Your task to perform on an android device: stop showing notifications on the lock screen Image 0: 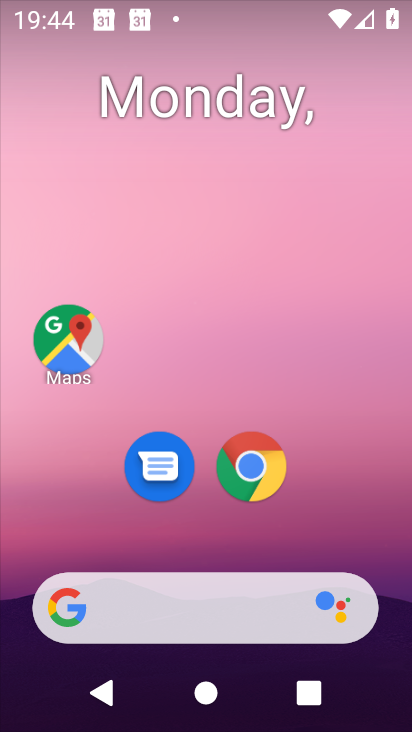
Step 0: drag from (348, 557) to (340, 123)
Your task to perform on an android device: stop showing notifications on the lock screen Image 1: 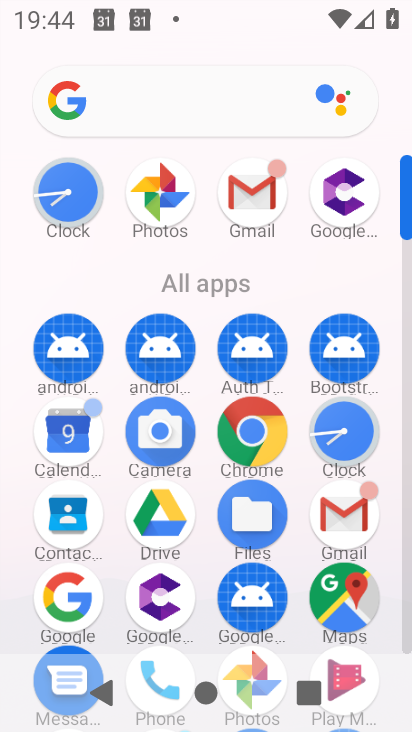
Step 1: click (265, 449)
Your task to perform on an android device: stop showing notifications on the lock screen Image 2: 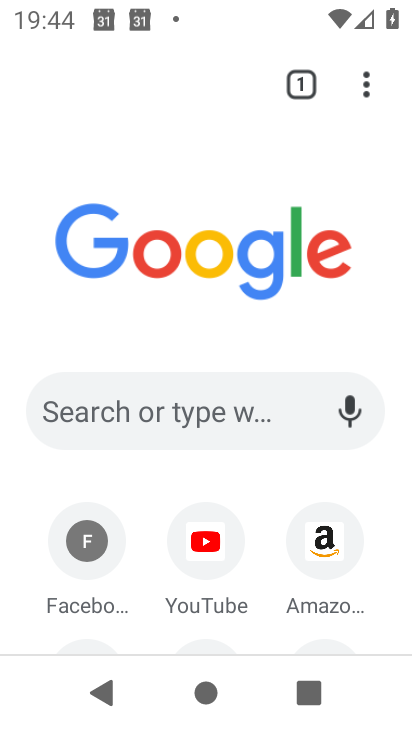
Step 2: press home button
Your task to perform on an android device: stop showing notifications on the lock screen Image 3: 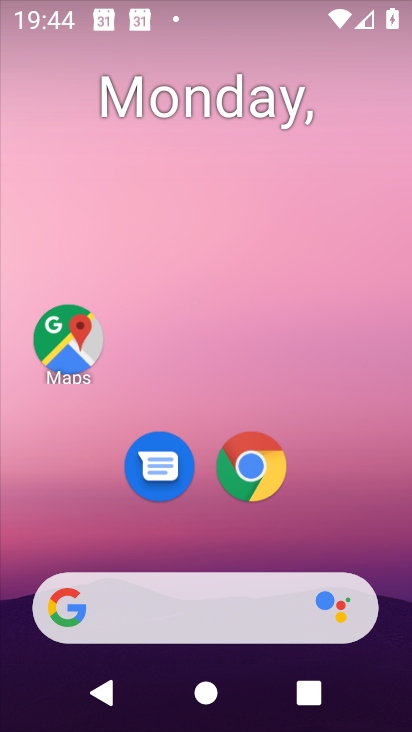
Step 3: drag from (338, 508) to (344, 167)
Your task to perform on an android device: stop showing notifications on the lock screen Image 4: 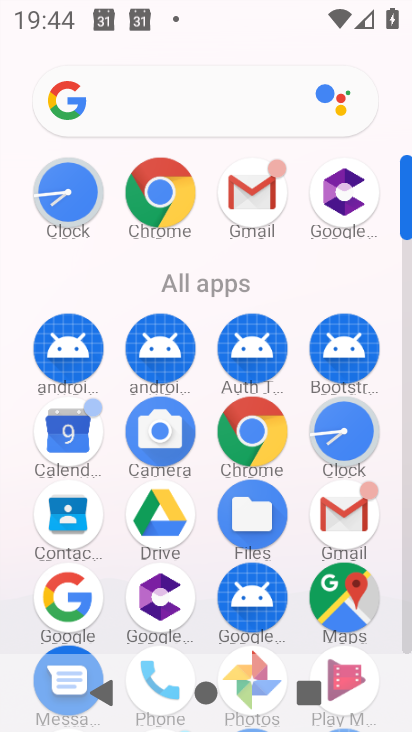
Step 4: drag from (293, 571) to (290, 233)
Your task to perform on an android device: stop showing notifications on the lock screen Image 5: 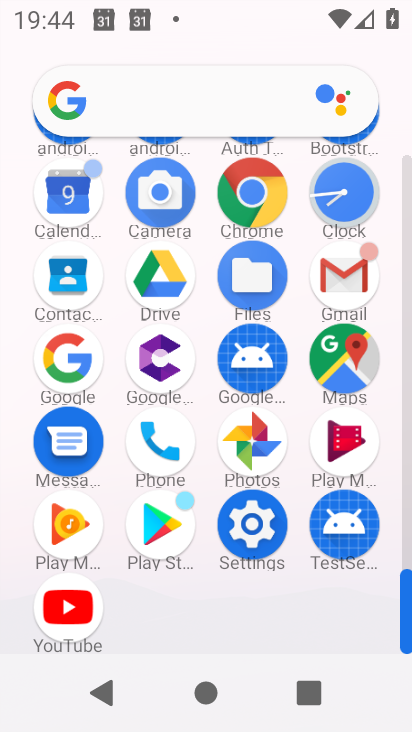
Step 5: click (258, 528)
Your task to perform on an android device: stop showing notifications on the lock screen Image 6: 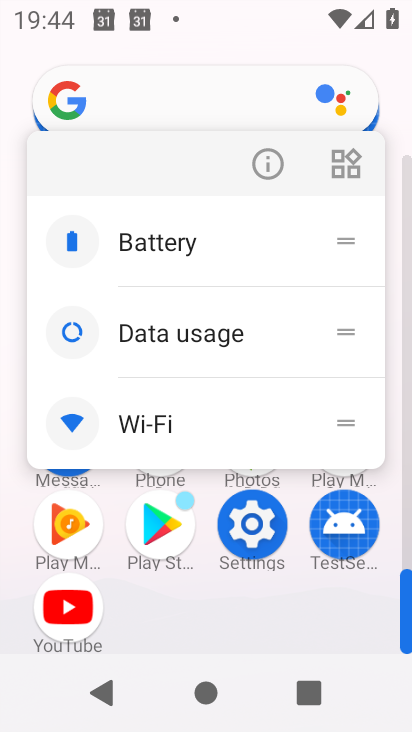
Step 6: click (258, 528)
Your task to perform on an android device: stop showing notifications on the lock screen Image 7: 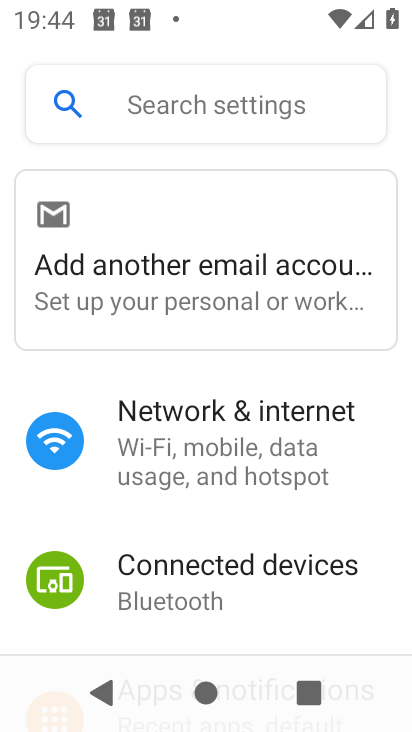
Step 7: drag from (265, 617) to (347, 245)
Your task to perform on an android device: stop showing notifications on the lock screen Image 8: 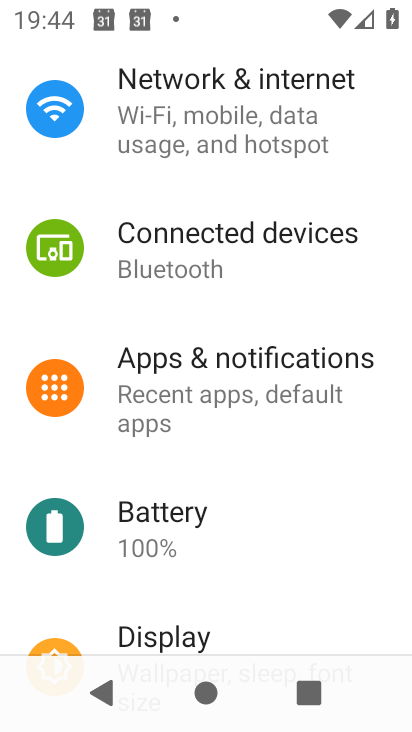
Step 8: click (305, 359)
Your task to perform on an android device: stop showing notifications on the lock screen Image 9: 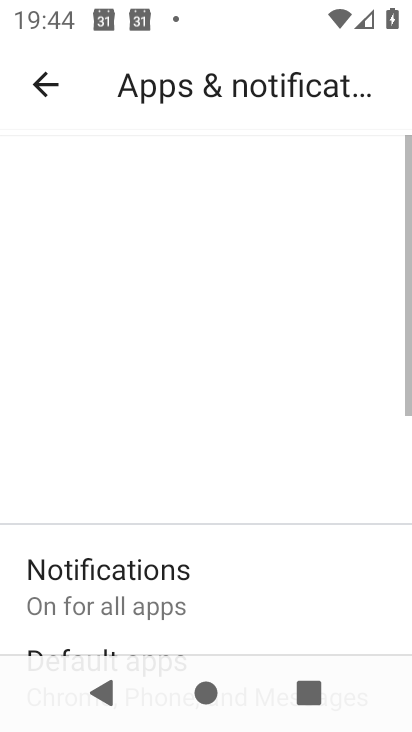
Step 9: click (292, 368)
Your task to perform on an android device: stop showing notifications on the lock screen Image 10: 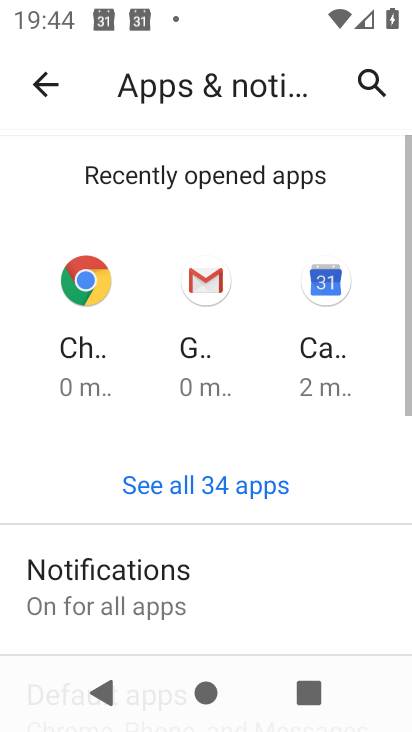
Step 10: drag from (253, 571) to (284, 269)
Your task to perform on an android device: stop showing notifications on the lock screen Image 11: 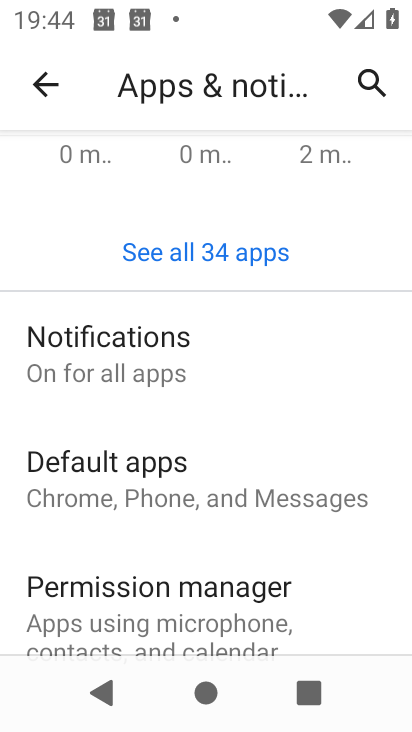
Step 11: click (133, 350)
Your task to perform on an android device: stop showing notifications on the lock screen Image 12: 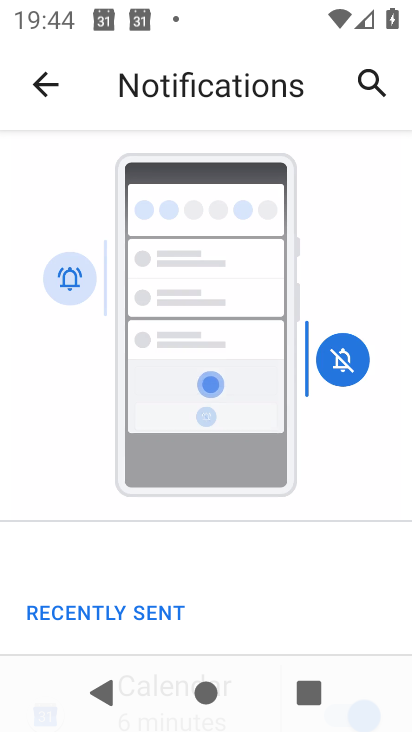
Step 12: drag from (318, 610) to (278, 292)
Your task to perform on an android device: stop showing notifications on the lock screen Image 13: 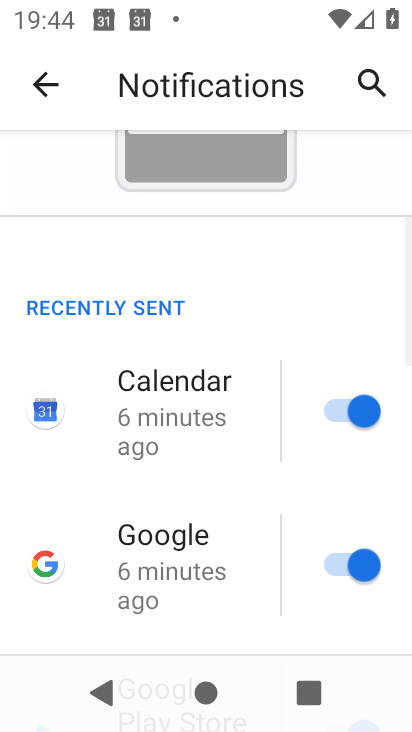
Step 13: click (278, 292)
Your task to perform on an android device: stop showing notifications on the lock screen Image 14: 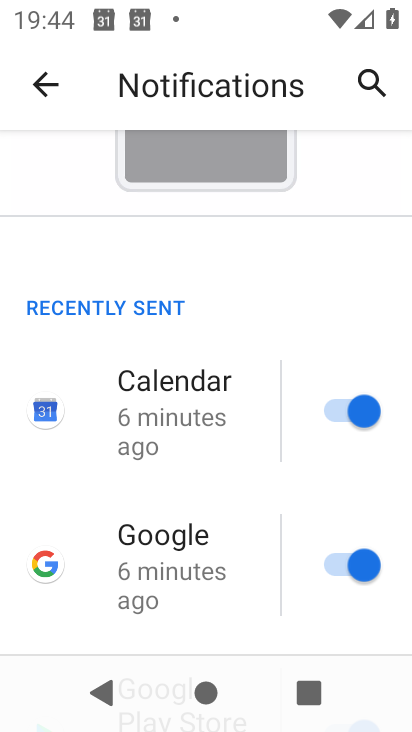
Step 14: drag from (218, 630) to (217, 303)
Your task to perform on an android device: stop showing notifications on the lock screen Image 15: 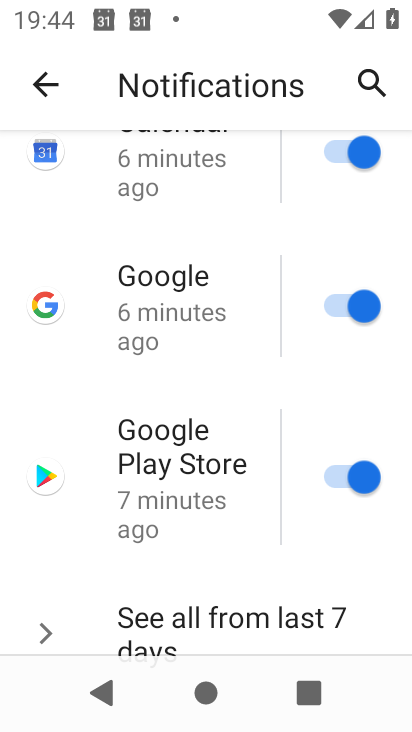
Step 15: drag from (325, 602) to (245, 309)
Your task to perform on an android device: stop showing notifications on the lock screen Image 16: 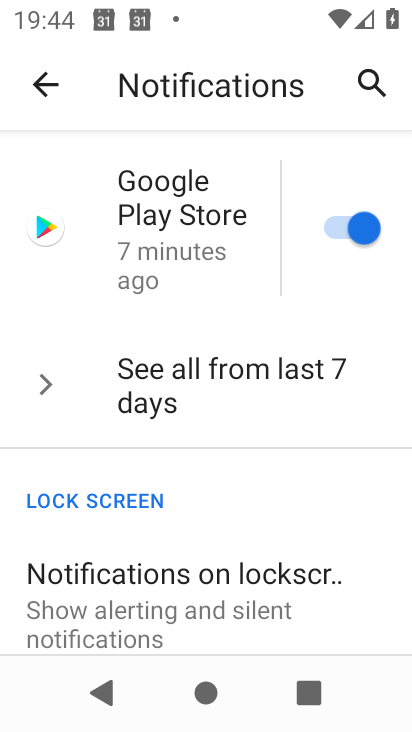
Step 16: drag from (338, 533) to (298, 337)
Your task to perform on an android device: stop showing notifications on the lock screen Image 17: 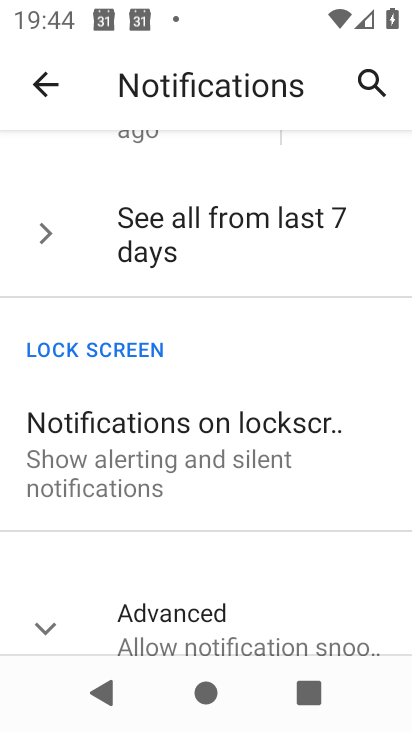
Step 17: click (271, 450)
Your task to perform on an android device: stop showing notifications on the lock screen Image 18: 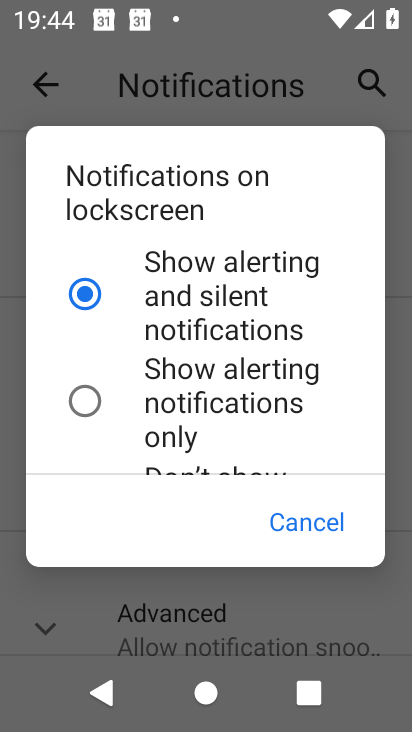
Step 18: drag from (222, 437) to (220, 147)
Your task to perform on an android device: stop showing notifications on the lock screen Image 19: 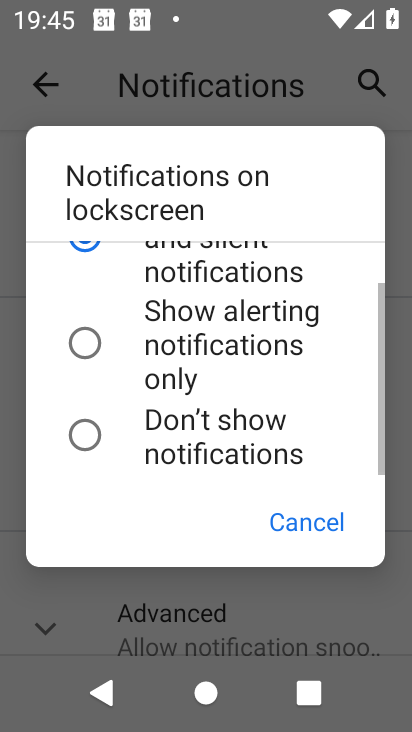
Step 19: click (196, 405)
Your task to perform on an android device: stop showing notifications on the lock screen Image 20: 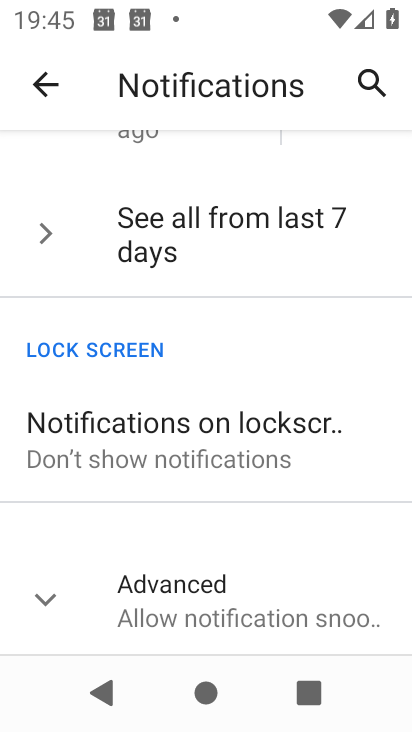
Step 20: task complete